Your task to perform on an android device: check android version Image 0: 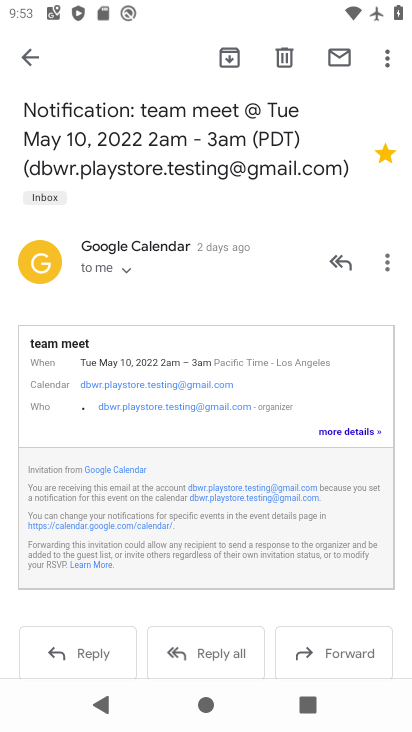
Step 0: press home button
Your task to perform on an android device: check android version Image 1: 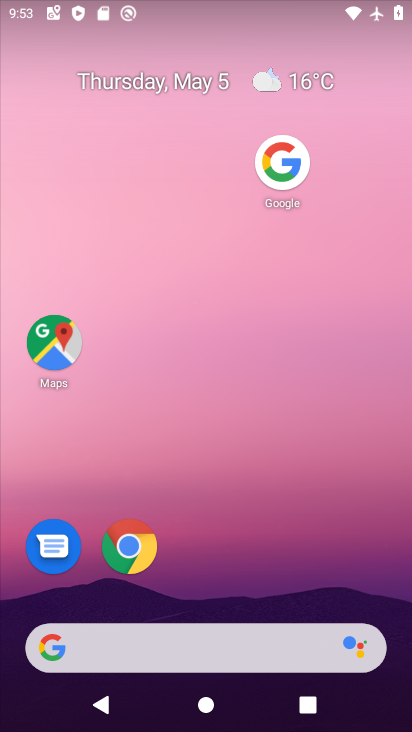
Step 1: drag from (146, 652) to (292, 146)
Your task to perform on an android device: check android version Image 2: 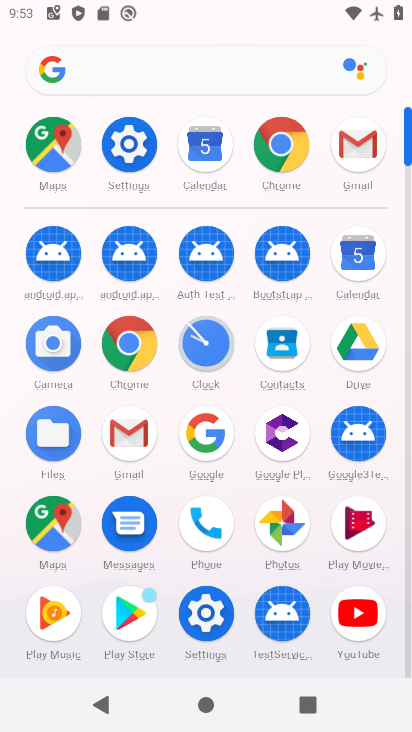
Step 2: click (133, 143)
Your task to perform on an android device: check android version Image 3: 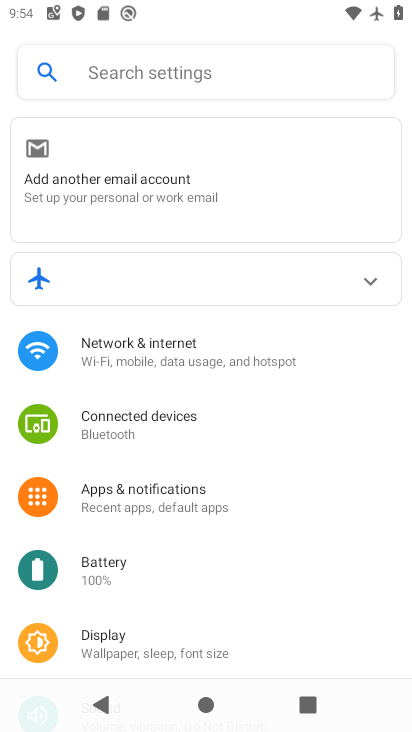
Step 3: drag from (147, 648) to (296, 101)
Your task to perform on an android device: check android version Image 4: 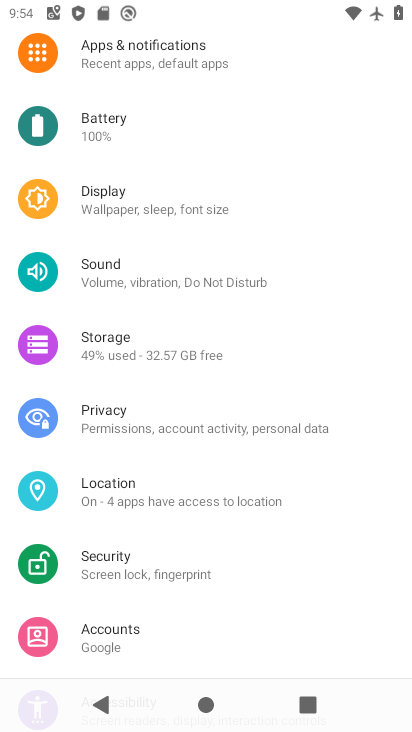
Step 4: drag from (157, 649) to (339, 48)
Your task to perform on an android device: check android version Image 5: 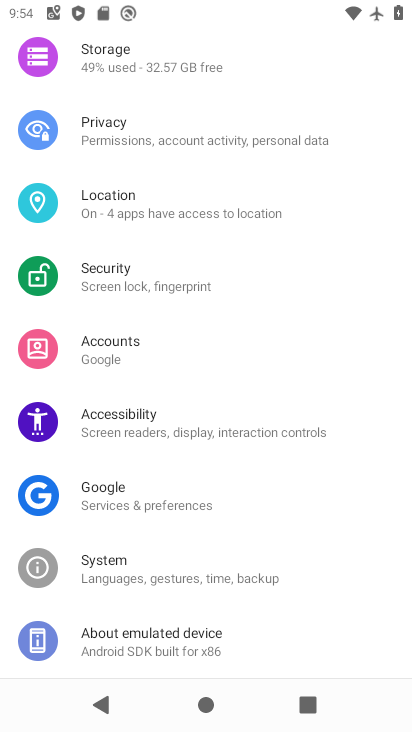
Step 5: click (163, 641)
Your task to perform on an android device: check android version Image 6: 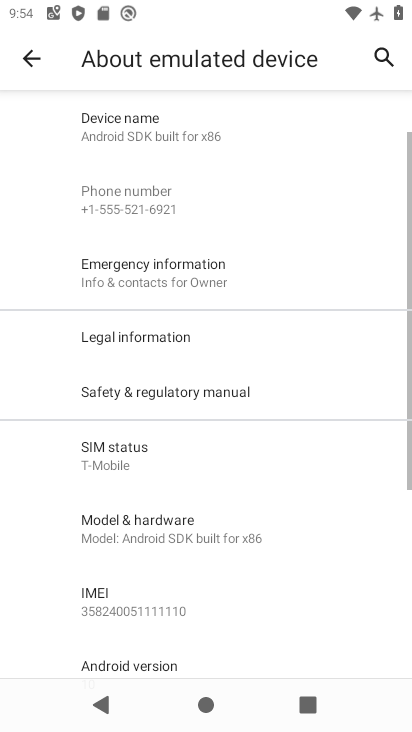
Step 6: drag from (208, 658) to (331, 12)
Your task to perform on an android device: check android version Image 7: 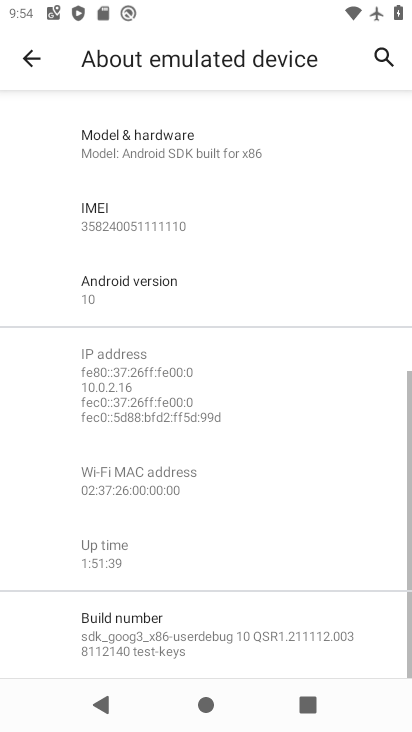
Step 7: click (122, 280)
Your task to perform on an android device: check android version Image 8: 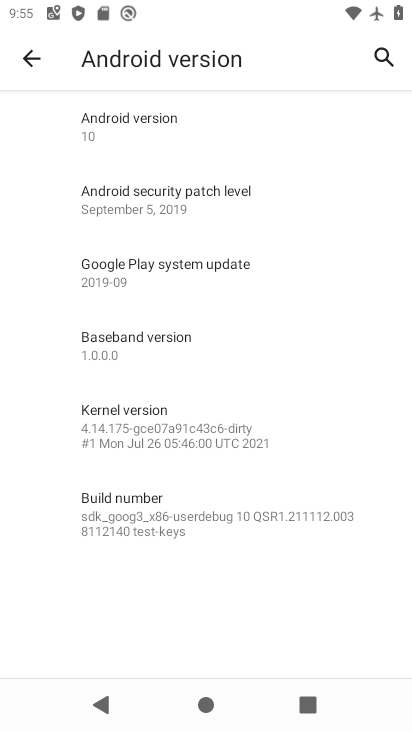
Step 8: task complete